Your task to perform on an android device: see sites visited before in the chrome app Image 0: 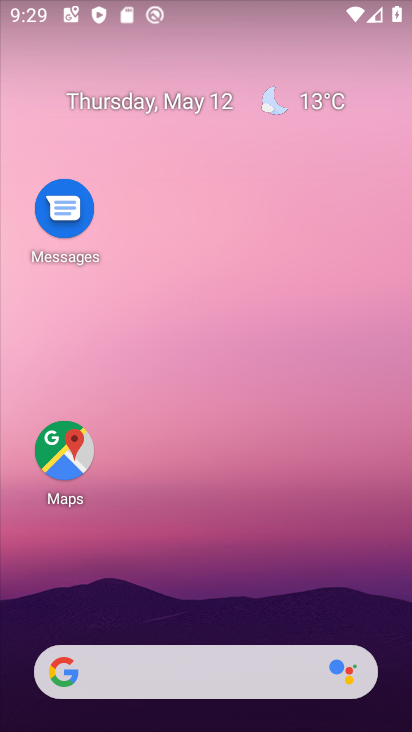
Step 0: drag from (201, 642) to (115, 6)
Your task to perform on an android device: see sites visited before in the chrome app Image 1: 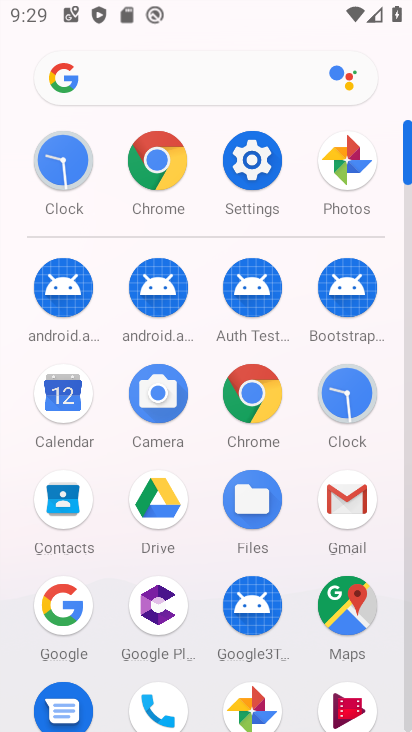
Step 1: click (256, 408)
Your task to perform on an android device: see sites visited before in the chrome app Image 2: 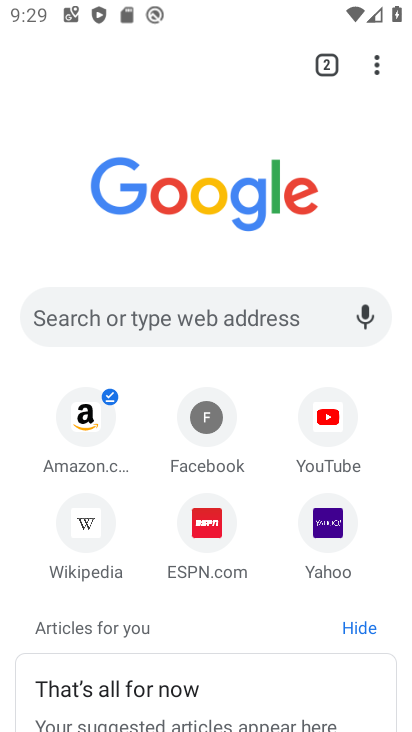
Step 2: click (374, 51)
Your task to perform on an android device: see sites visited before in the chrome app Image 3: 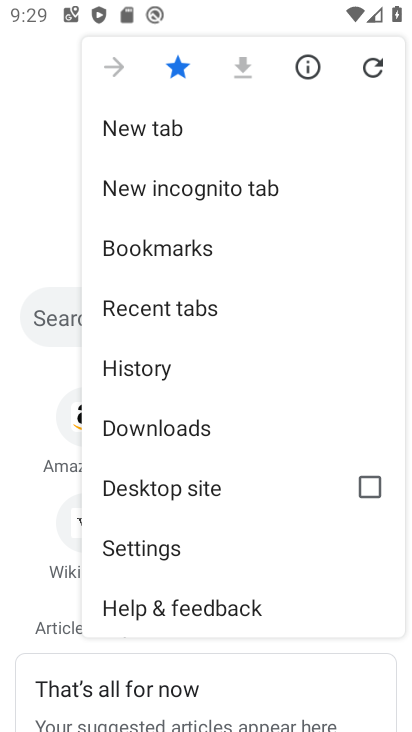
Step 3: click (151, 363)
Your task to perform on an android device: see sites visited before in the chrome app Image 4: 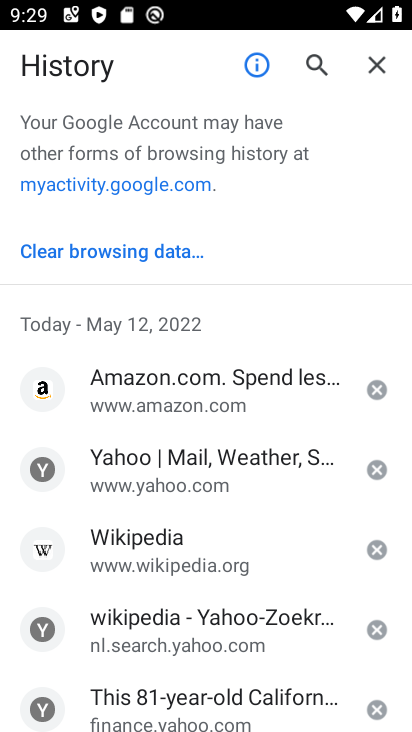
Step 4: task complete